Your task to perform on an android device: turn off location history Image 0: 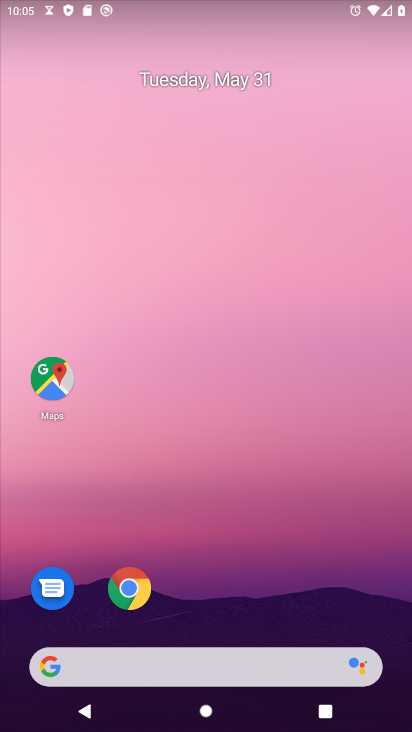
Step 0: drag from (288, 603) to (189, 209)
Your task to perform on an android device: turn off location history Image 1: 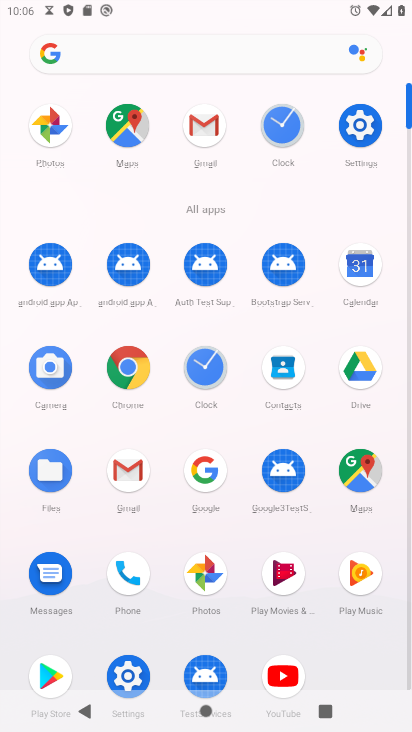
Step 1: click (361, 125)
Your task to perform on an android device: turn off location history Image 2: 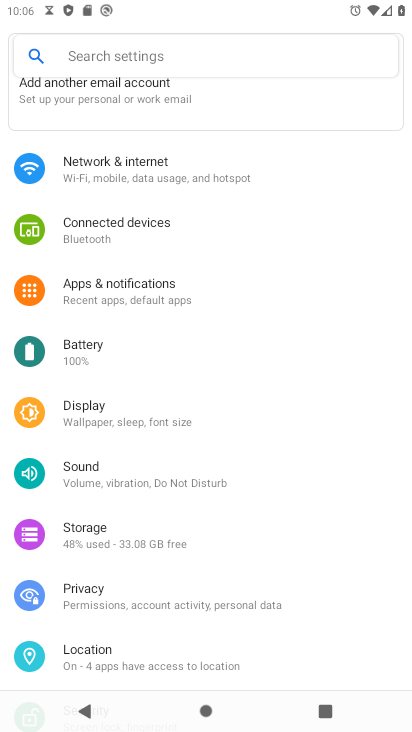
Step 2: drag from (129, 591) to (134, 478)
Your task to perform on an android device: turn off location history Image 3: 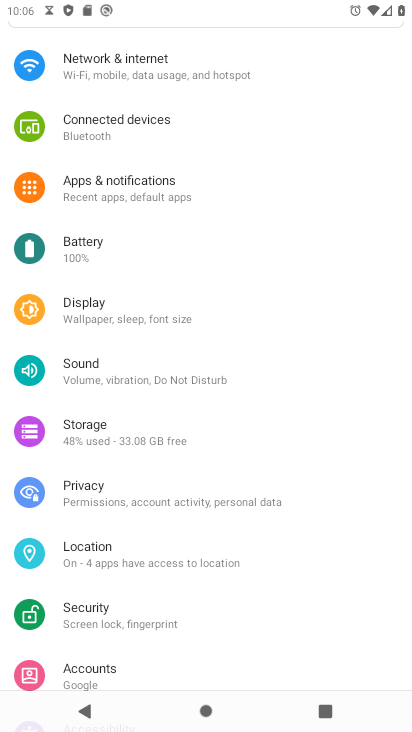
Step 3: click (156, 559)
Your task to perform on an android device: turn off location history Image 4: 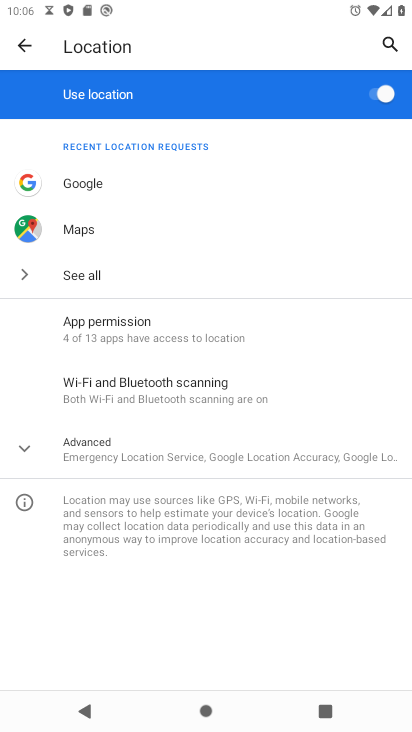
Step 4: click (183, 453)
Your task to perform on an android device: turn off location history Image 5: 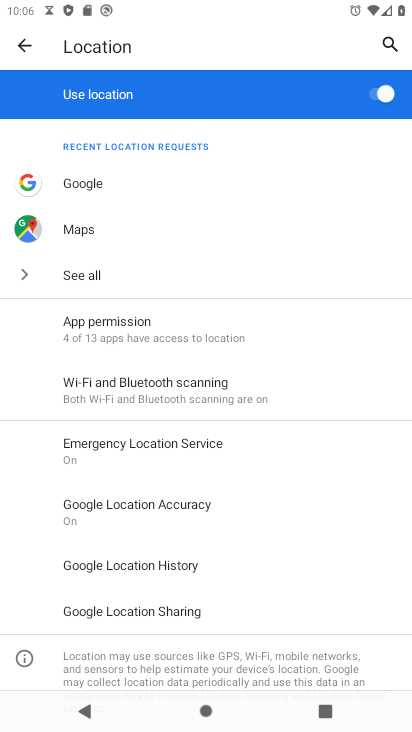
Step 5: click (136, 565)
Your task to perform on an android device: turn off location history Image 6: 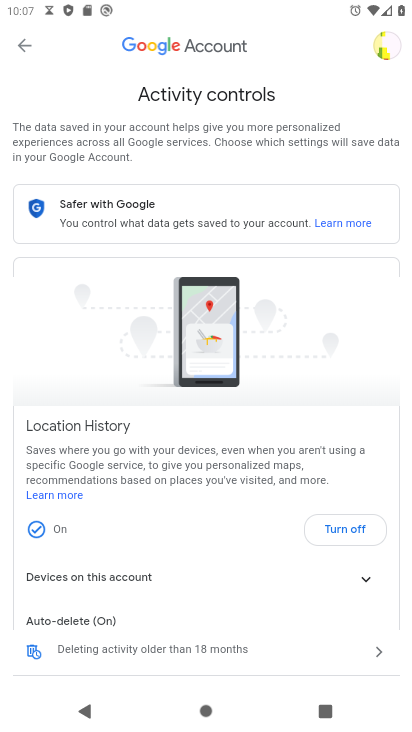
Step 6: click (348, 526)
Your task to perform on an android device: turn off location history Image 7: 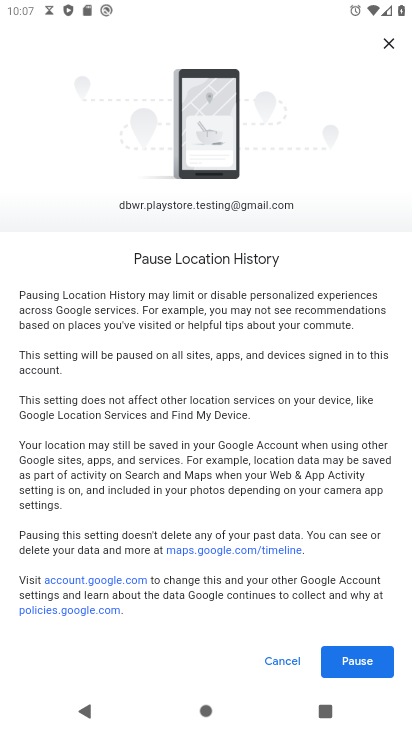
Step 7: click (359, 659)
Your task to perform on an android device: turn off location history Image 8: 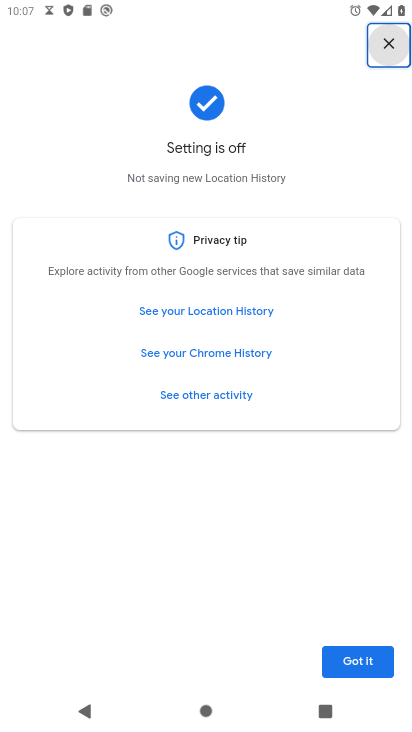
Step 8: click (359, 659)
Your task to perform on an android device: turn off location history Image 9: 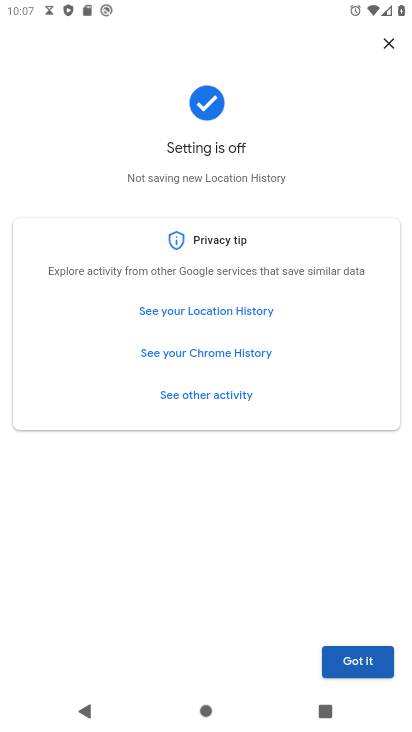
Step 9: click (354, 653)
Your task to perform on an android device: turn off location history Image 10: 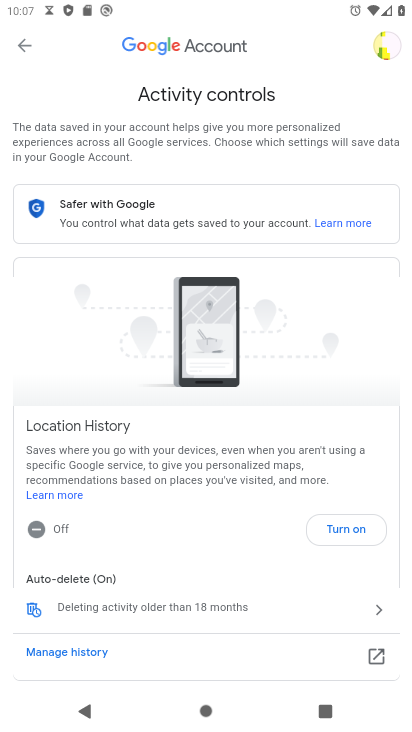
Step 10: task complete